Your task to perform on an android device: What's a good restaurant in Boston? Image 0: 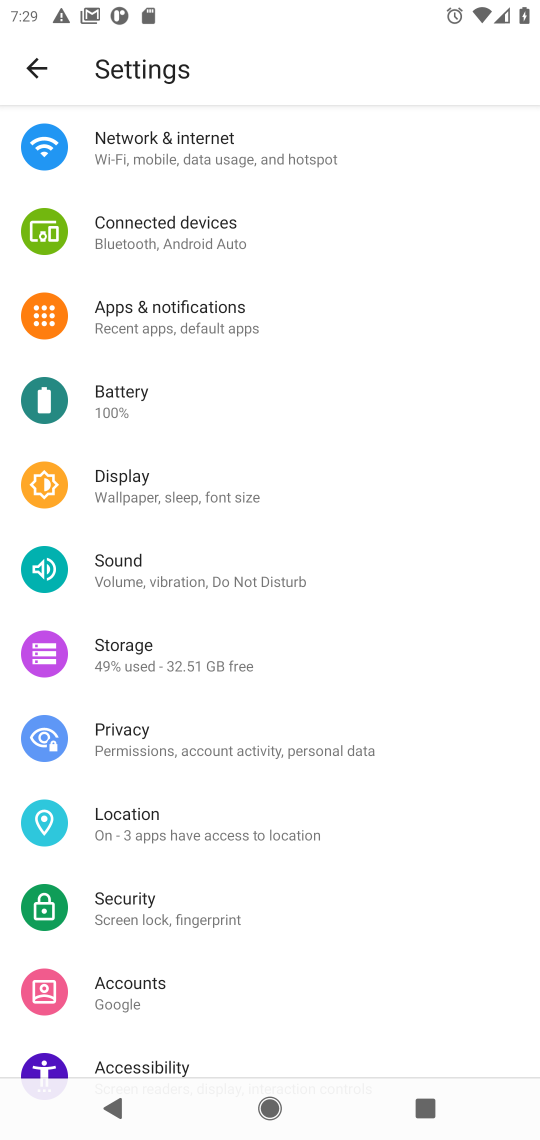
Step 0: press home button
Your task to perform on an android device: What's a good restaurant in Boston? Image 1: 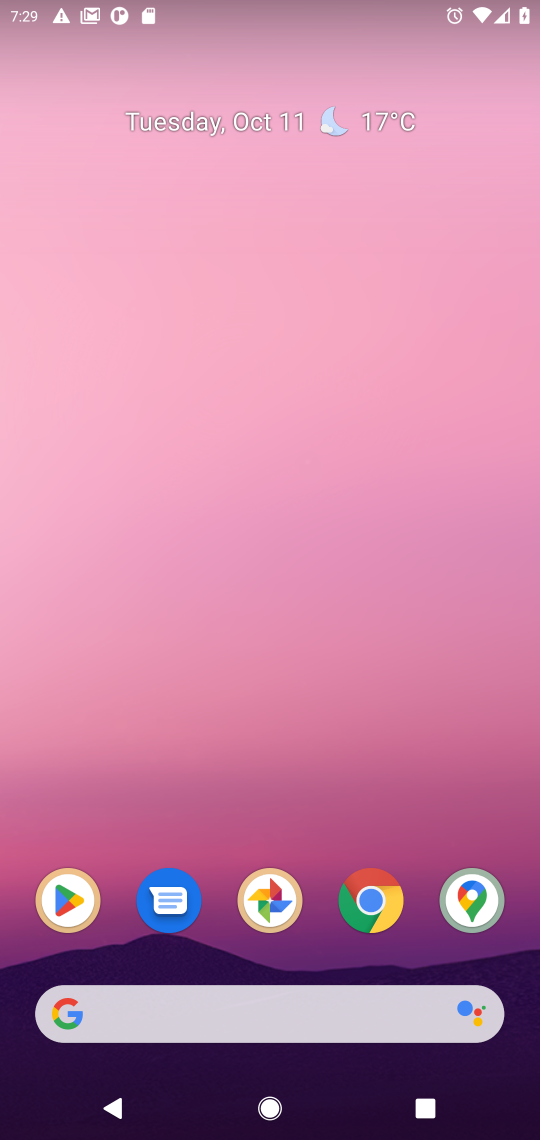
Step 1: click (368, 896)
Your task to perform on an android device: What's a good restaurant in Boston? Image 2: 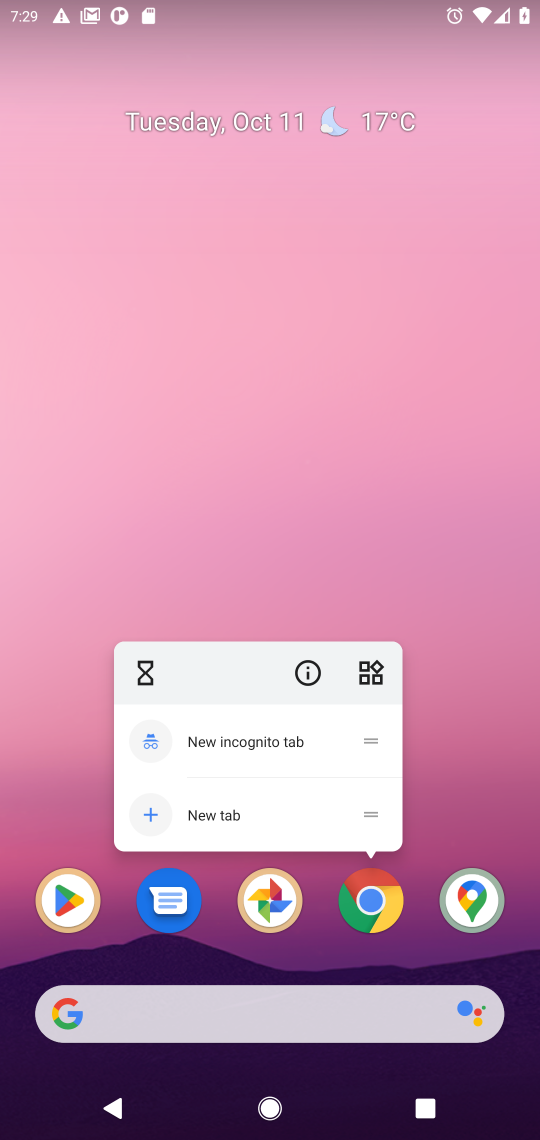
Step 2: click (365, 901)
Your task to perform on an android device: What's a good restaurant in Boston? Image 3: 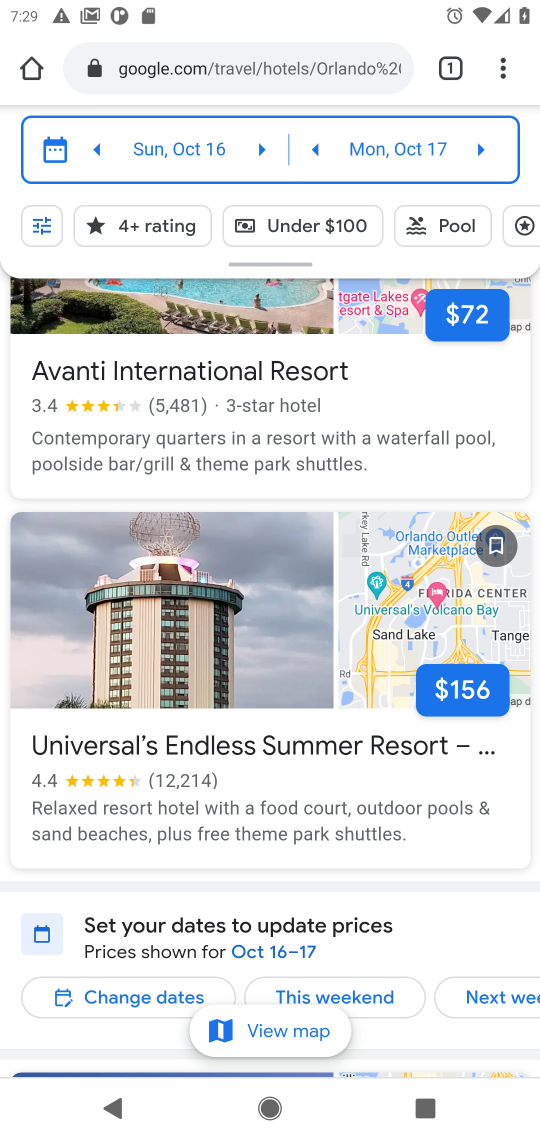
Step 3: click (297, 76)
Your task to perform on an android device: What's a good restaurant in Boston? Image 4: 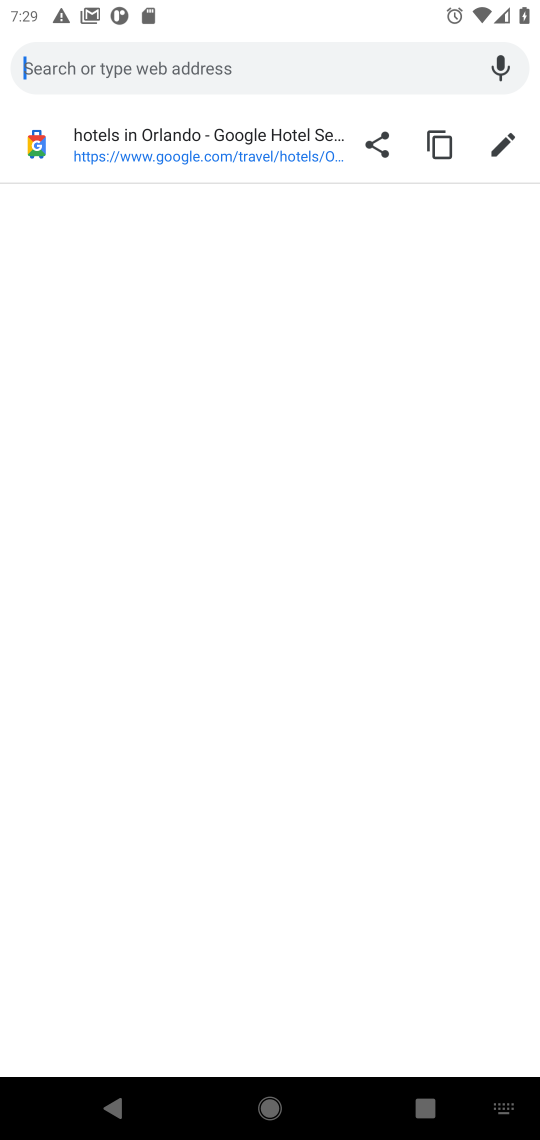
Step 4: type "good restaurant in Boston"
Your task to perform on an android device: What's a good restaurant in Boston? Image 5: 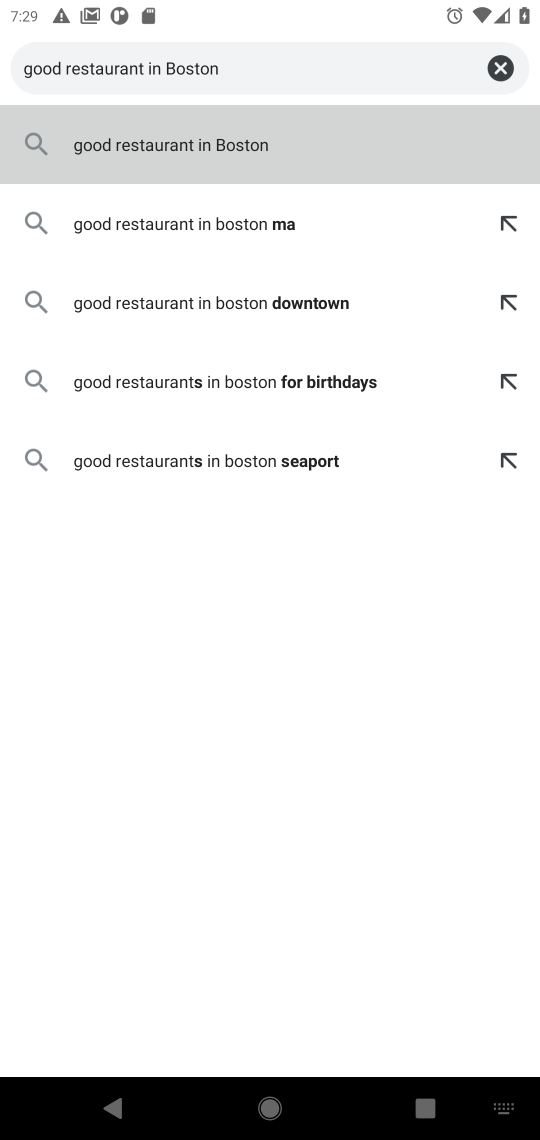
Step 5: press enter
Your task to perform on an android device: What's a good restaurant in Boston? Image 6: 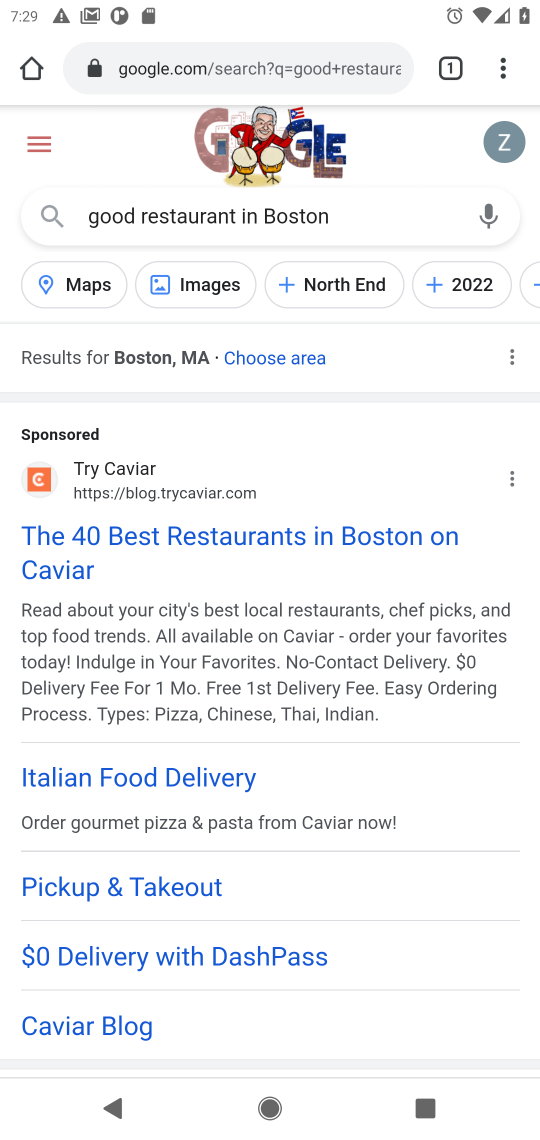
Step 6: task complete